Your task to perform on an android device: Open Wikipedia Image 0: 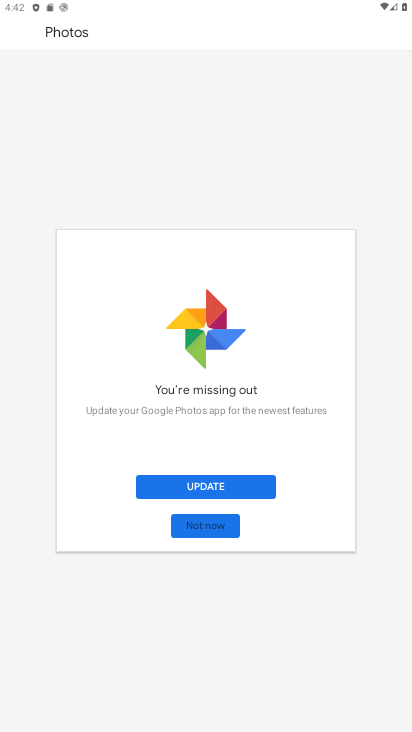
Step 0: press home button
Your task to perform on an android device: Open Wikipedia Image 1: 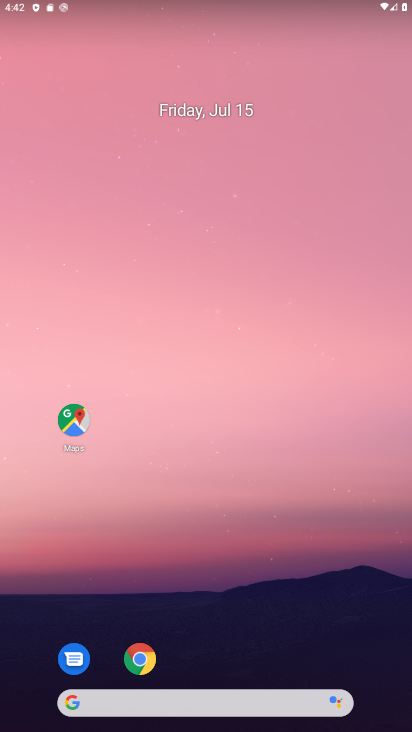
Step 1: drag from (325, 661) to (197, 3)
Your task to perform on an android device: Open Wikipedia Image 2: 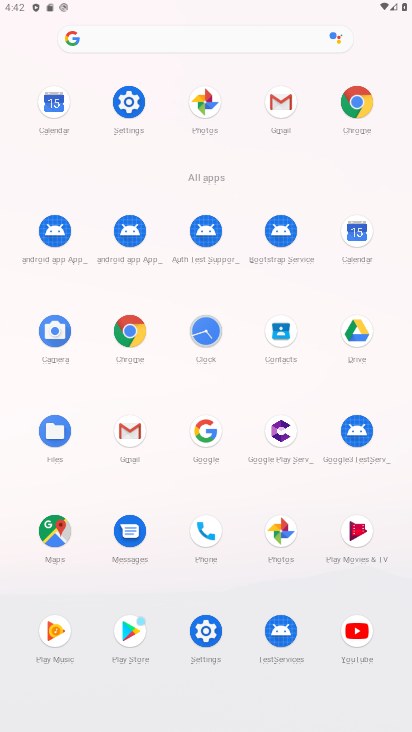
Step 2: click (351, 129)
Your task to perform on an android device: Open Wikipedia Image 3: 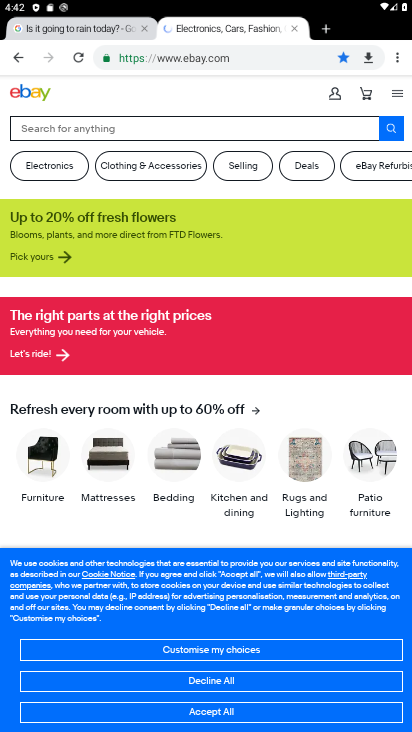
Step 3: click (327, 20)
Your task to perform on an android device: Open Wikipedia Image 4: 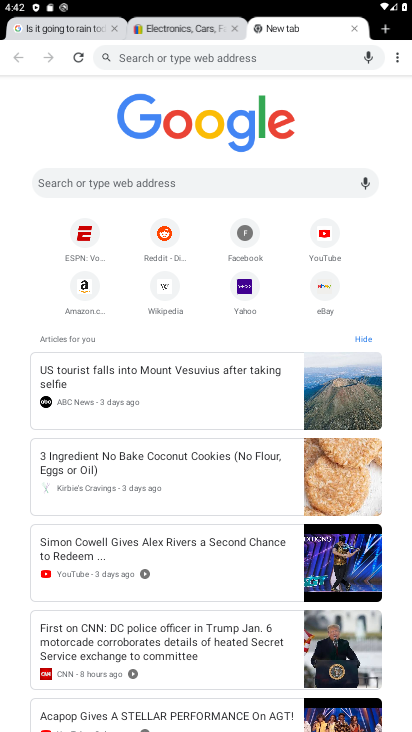
Step 4: click (161, 310)
Your task to perform on an android device: Open Wikipedia Image 5: 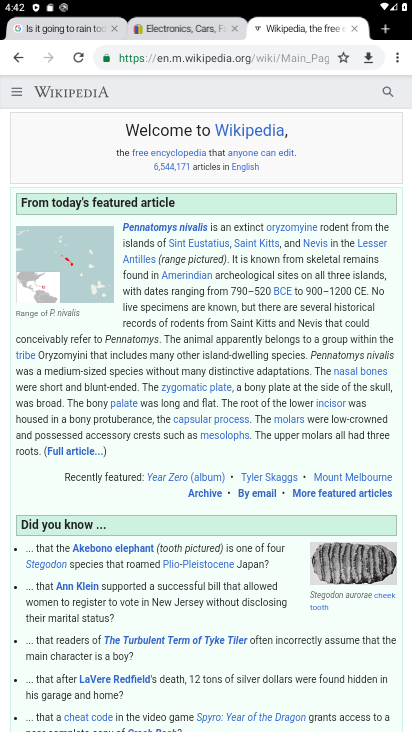
Step 5: task complete